Your task to perform on an android device: delete browsing data in the chrome app Image 0: 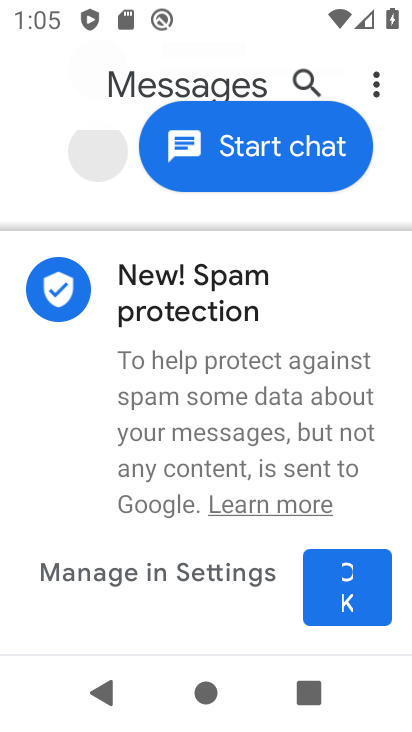
Step 0: press home button
Your task to perform on an android device: delete browsing data in the chrome app Image 1: 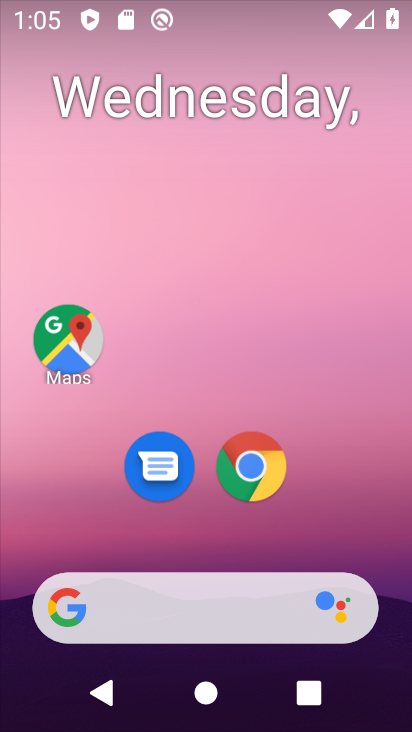
Step 1: drag from (321, 530) to (342, 44)
Your task to perform on an android device: delete browsing data in the chrome app Image 2: 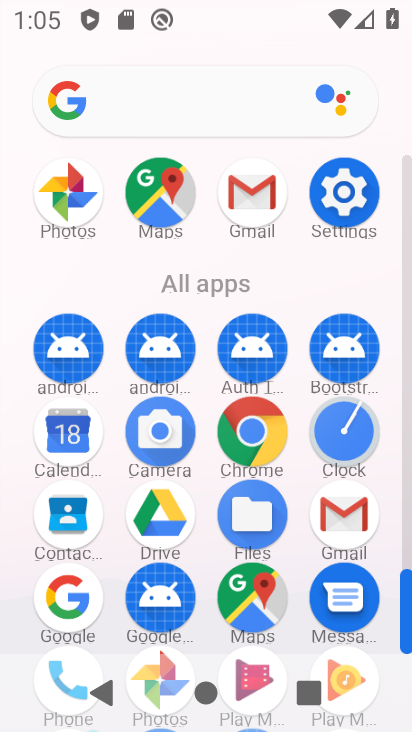
Step 2: click (264, 442)
Your task to perform on an android device: delete browsing data in the chrome app Image 3: 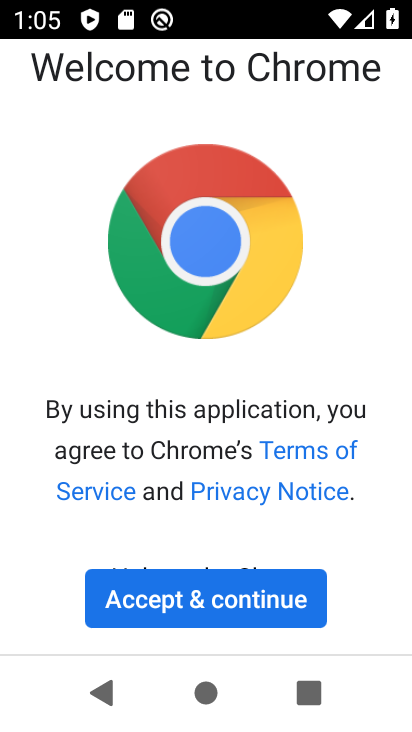
Step 3: click (130, 602)
Your task to perform on an android device: delete browsing data in the chrome app Image 4: 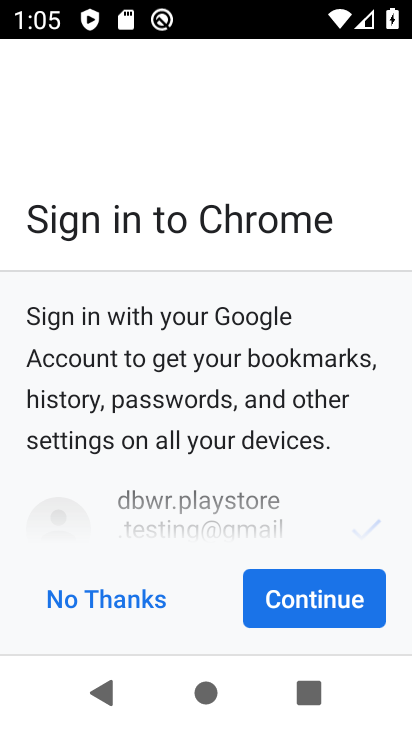
Step 4: click (322, 585)
Your task to perform on an android device: delete browsing data in the chrome app Image 5: 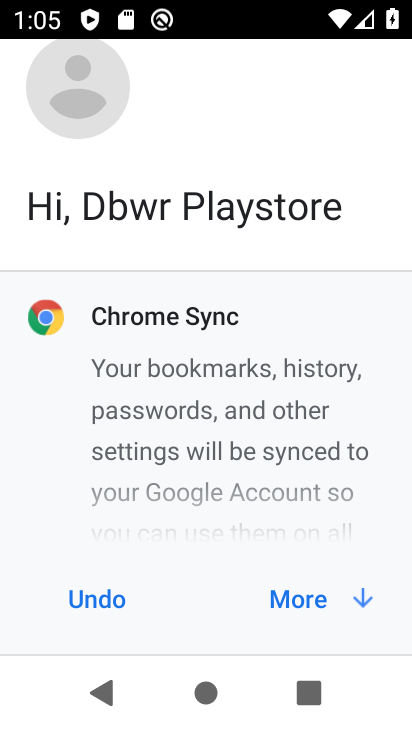
Step 5: click (340, 599)
Your task to perform on an android device: delete browsing data in the chrome app Image 6: 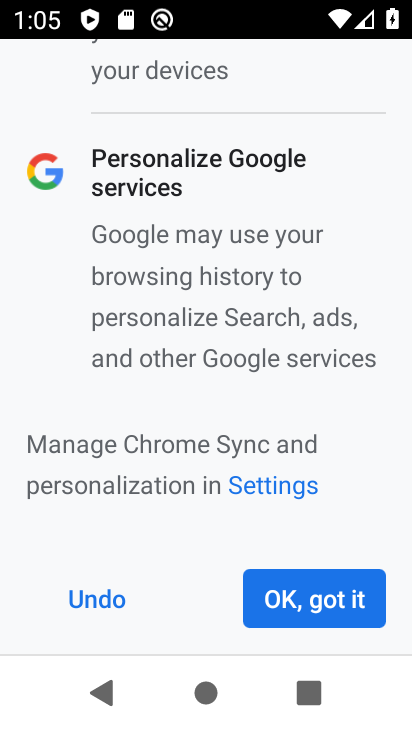
Step 6: click (345, 595)
Your task to perform on an android device: delete browsing data in the chrome app Image 7: 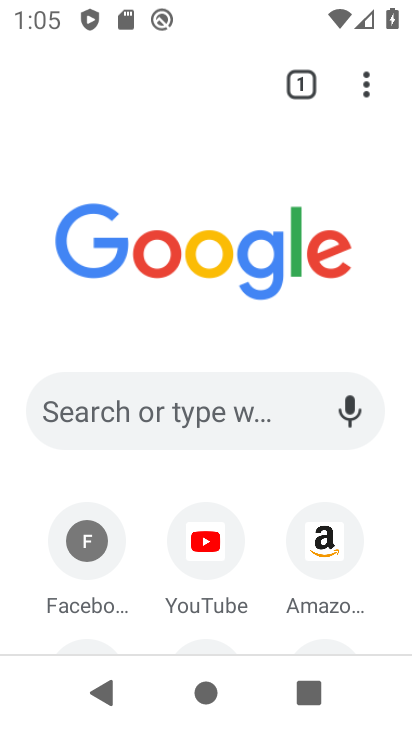
Step 7: click (358, 85)
Your task to perform on an android device: delete browsing data in the chrome app Image 8: 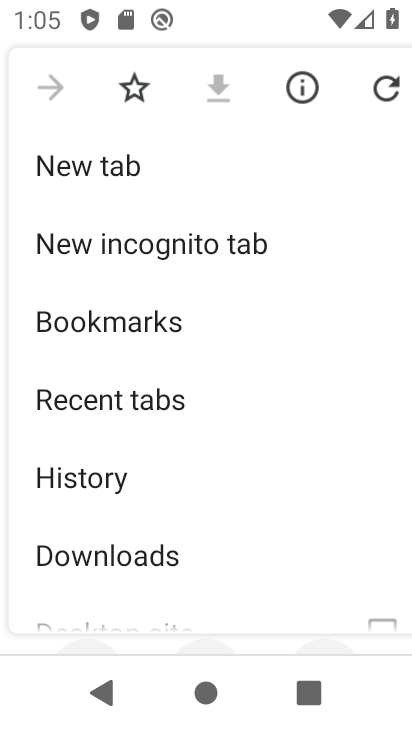
Step 8: click (112, 469)
Your task to perform on an android device: delete browsing data in the chrome app Image 9: 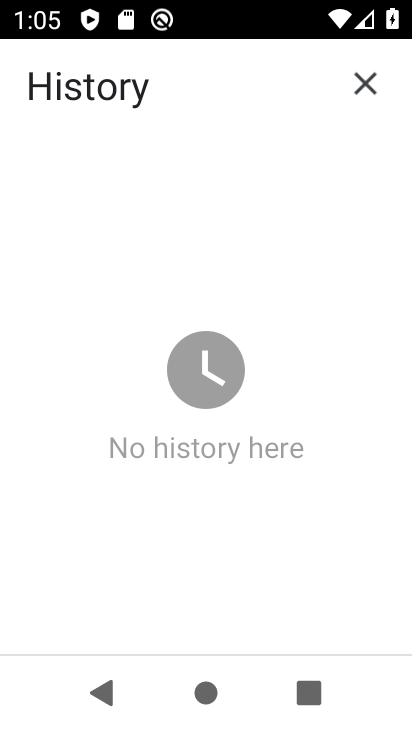
Step 9: task complete